Your task to perform on an android device: Search for Italian restaurants on Maps Image 0: 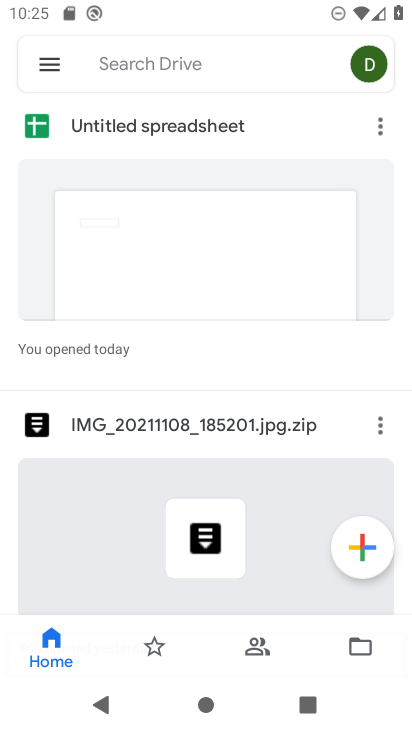
Step 0: press home button
Your task to perform on an android device: Search for Italian restaurants on Maps Image 1: 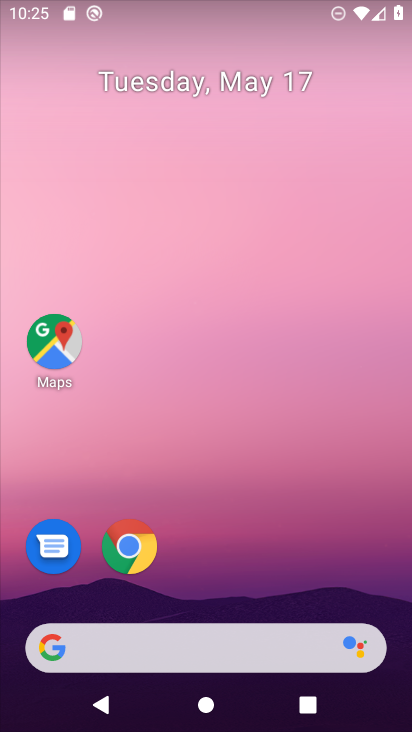
Step 1: click (59, 343)
Your task to perform on an android device: Search for Italian restaurants on Maps Image 2: 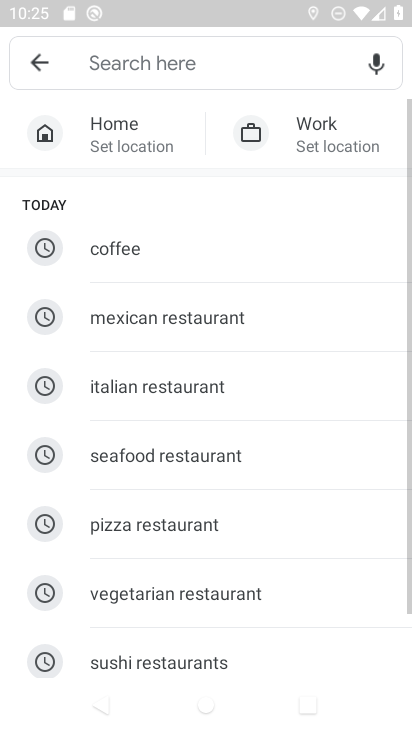
Step 2: click (110, 64)
Your task to perform on an android device: Search for Italian restaurants on Maps Image 3: 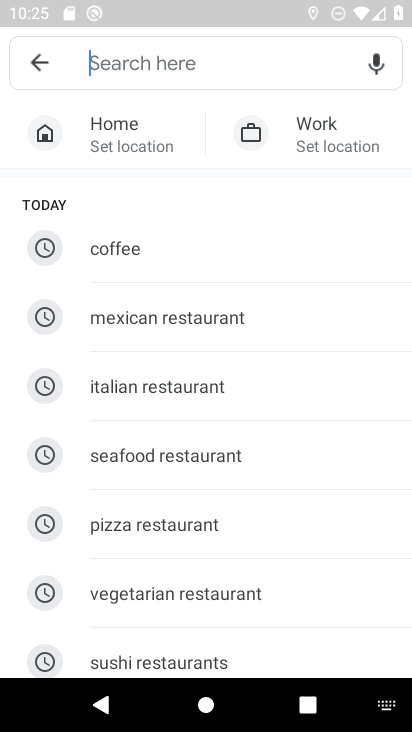
Step 3: type "italian restaurant "
Your task to perform on an android device: Search for Italian restaurants on Maps Image 4: 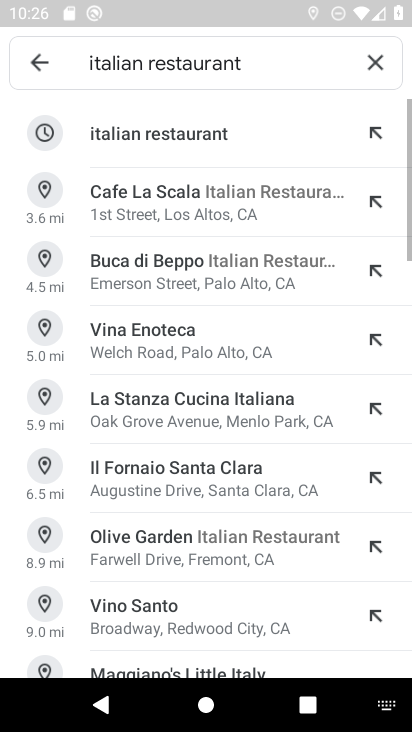
Step 4: click (138, 141)
Your task to perform on an android device: Search for Italian restaurants on Maps Image 5: 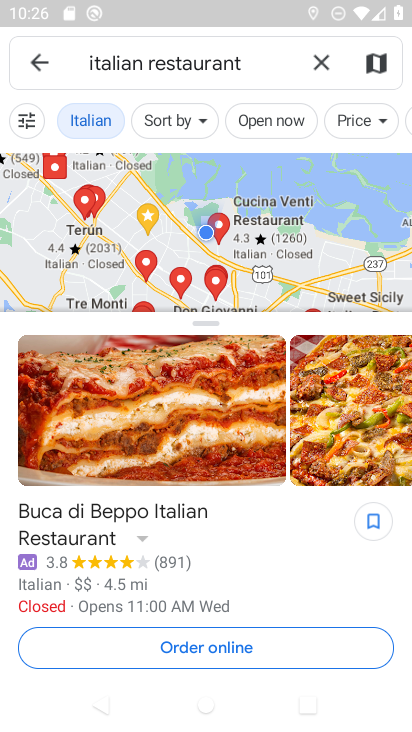
Step 5: task complete